Your task to perform on an android device: Go to CNN.com Image 0: 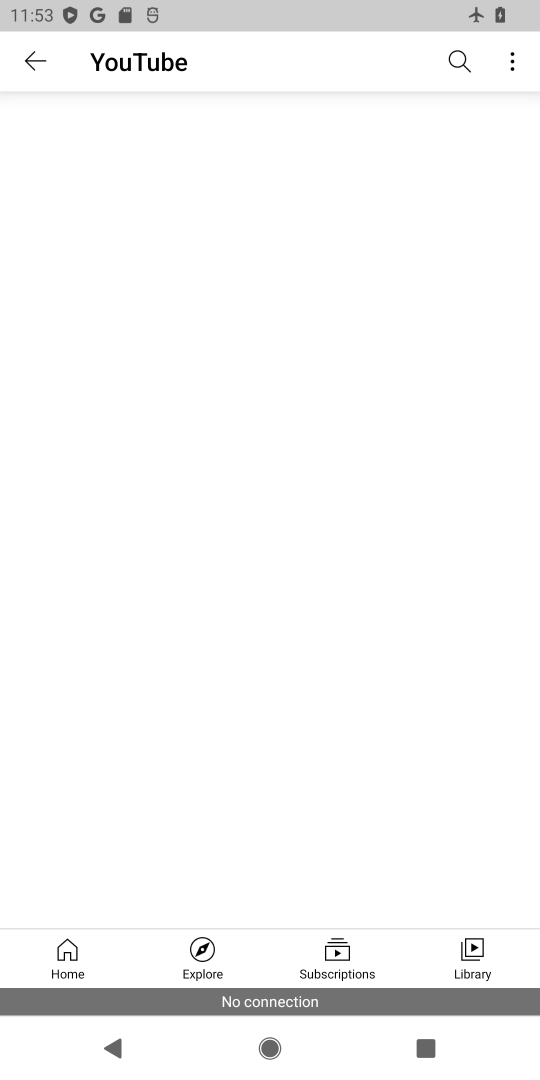
Step 0: press home button
Your task to perform on an android device: Go to CNN.com Image 1: 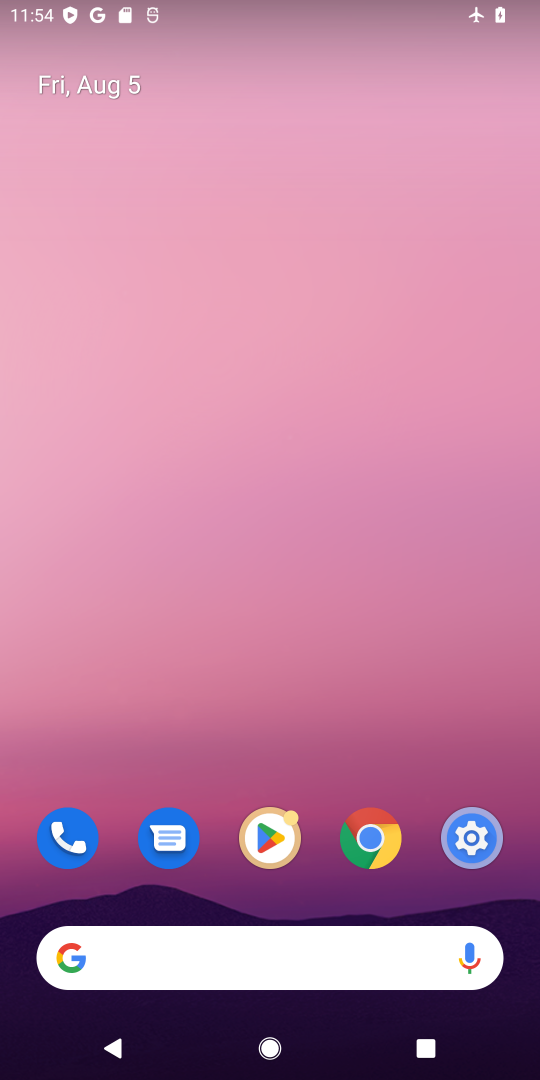
Step 1: click (263, 947)
Your task to perform on an android device: Go to CNN.com Image 2: 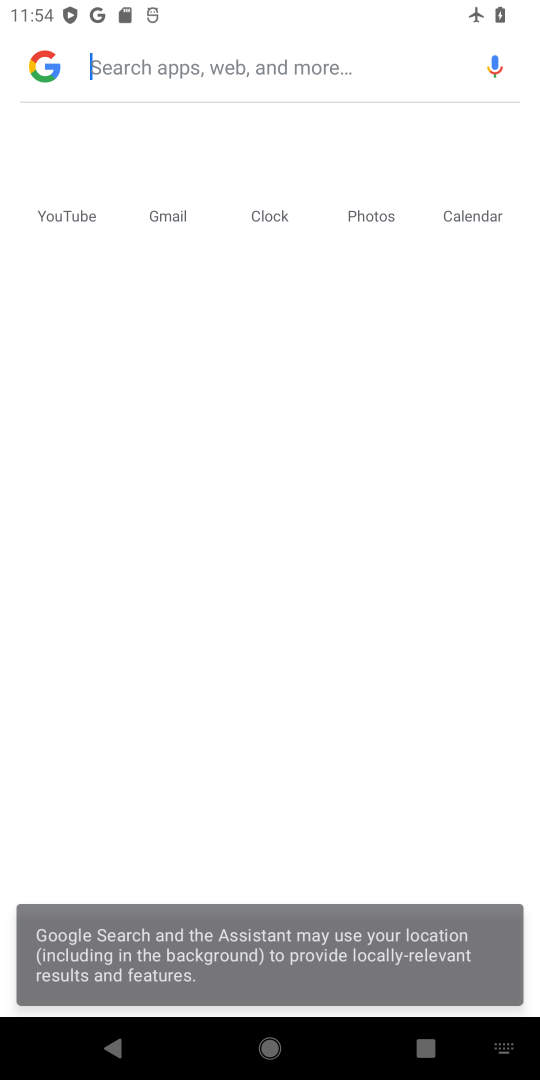
Step 2: click (98, 58)
Your task to perform on an android device: Go to CNN.com Image 3: 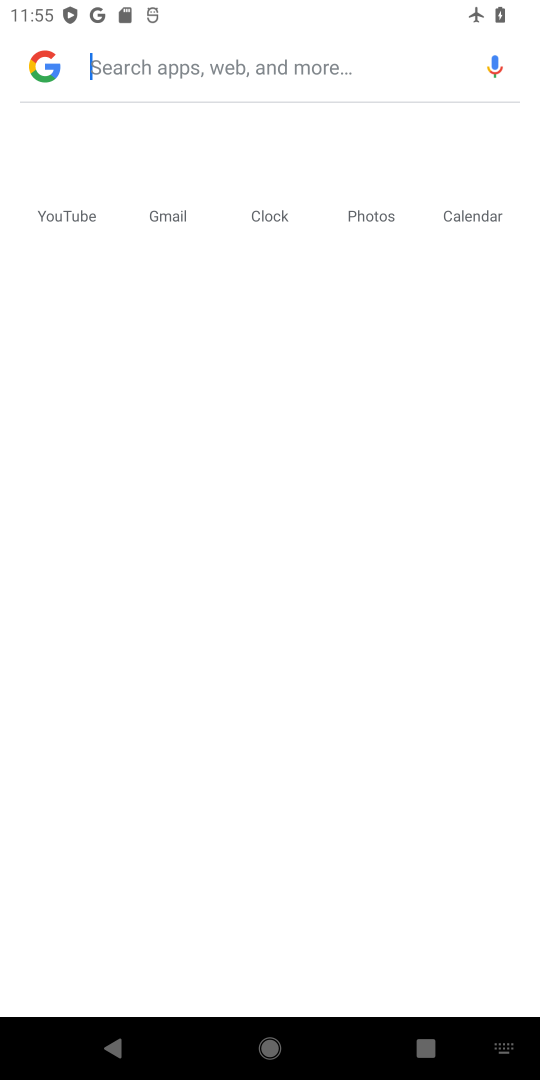
Step 3: type "CNN.com"
Your task to perform on an android device: Go to CNN.com Image 4: 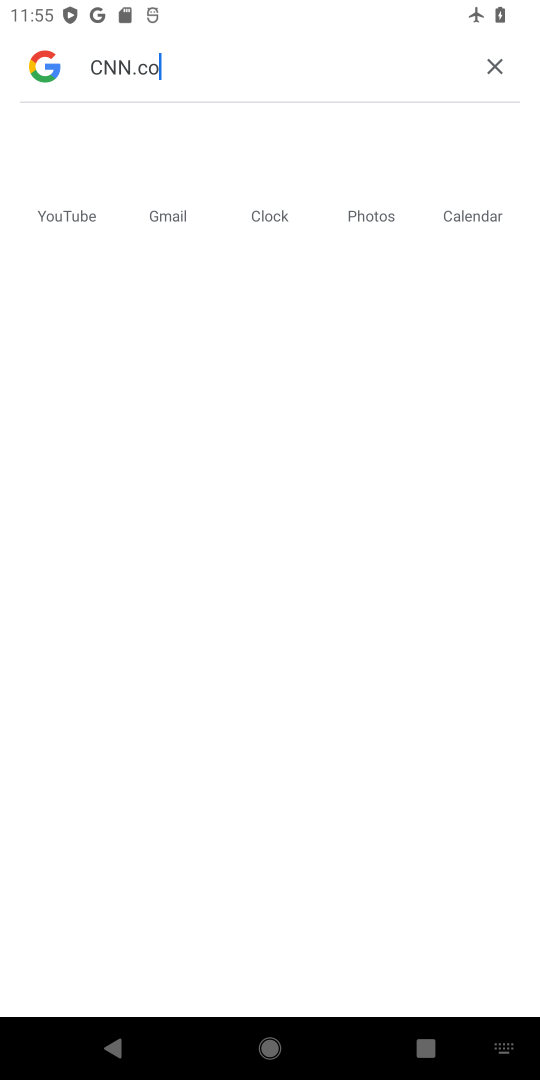
Step 4: type ""
Your task to perform on an android device: Go to CNN.com Image 5: 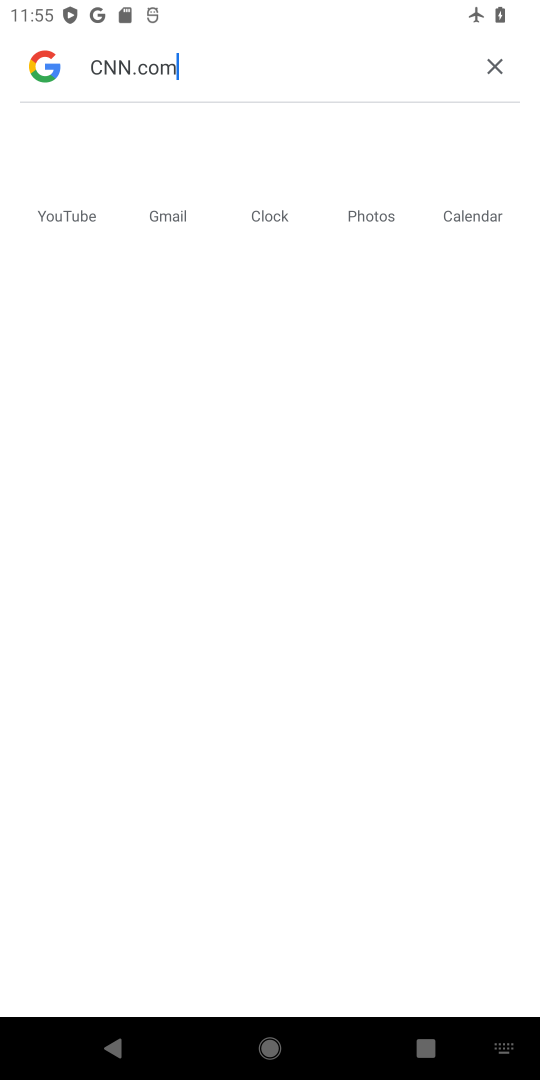
Step 5: press enter
Your task to perform on an android device: Go to CNN.com Image 6: 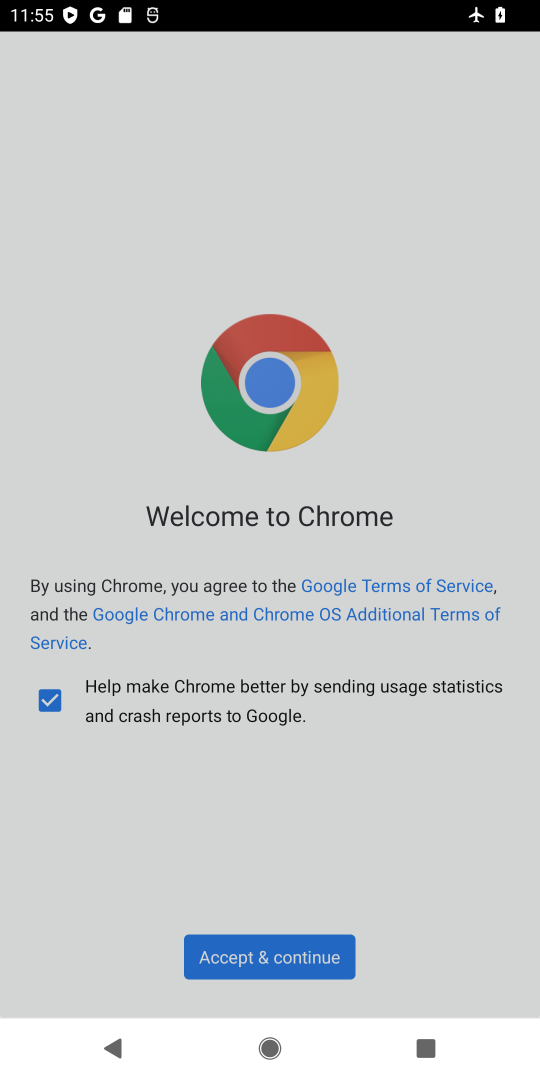
Step 6: click (296, 951)
Your task to perform on an android device: Go to CNN.com Image 7: 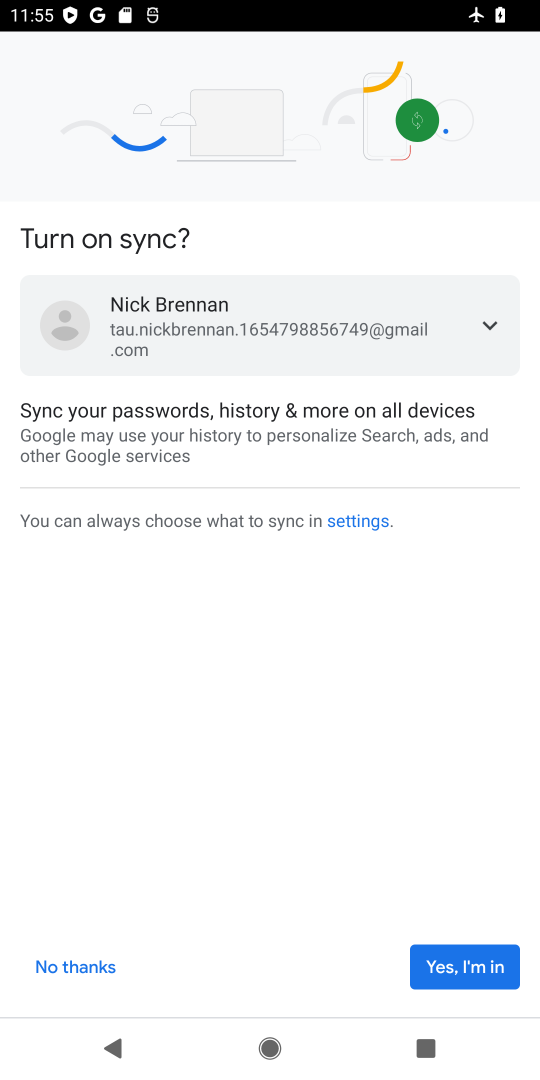
Step 7: click (446, 972)
Your task to perform on an android device: Go to CNN.com Image 8: 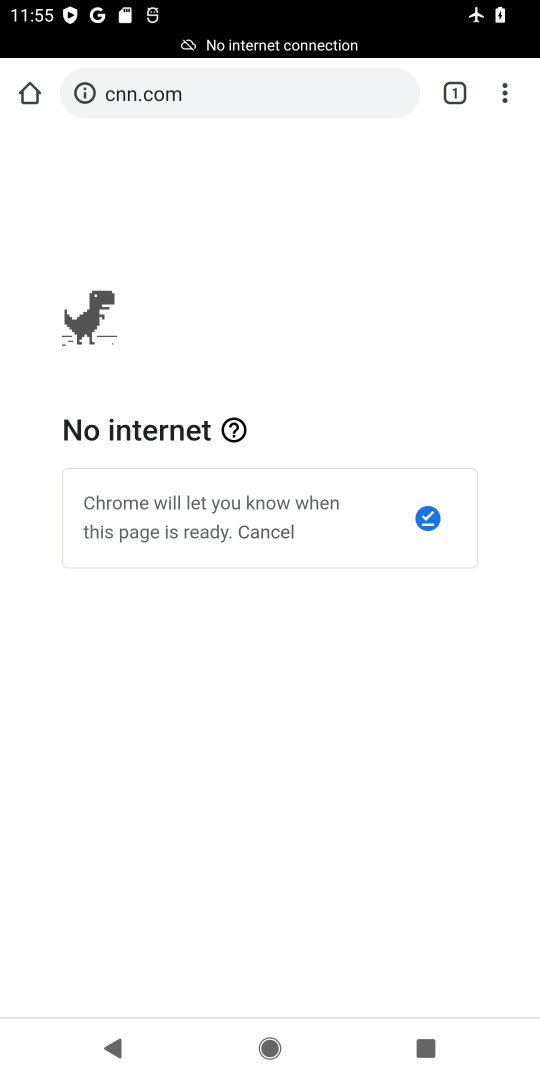
Step 8: drag from (394, 7) to (337, 399)
Your task to perform on an android device: Go to CNN.com Image 9: 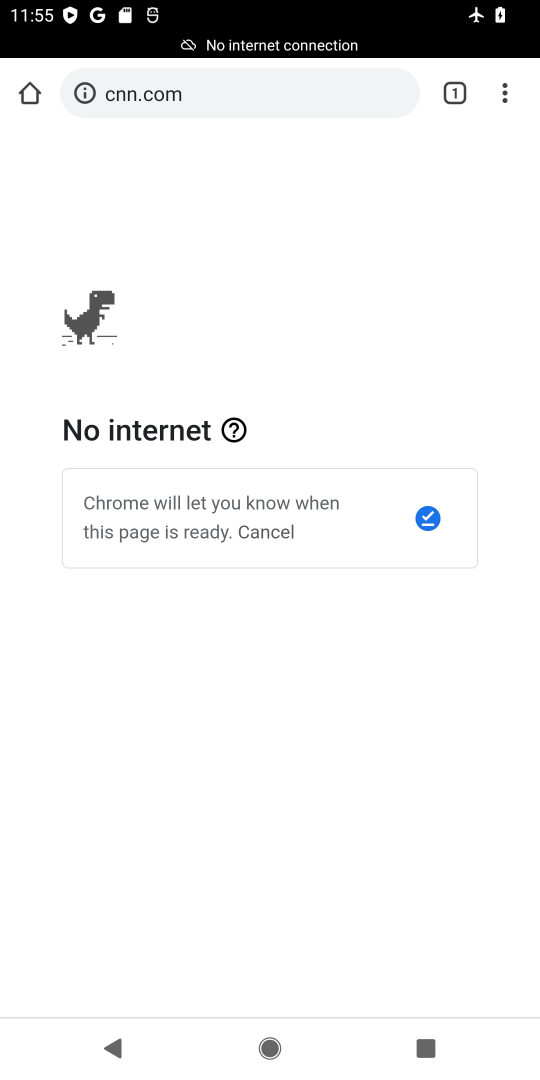
Step 9: drag from (421, 102) to (429, 613)
Your task to perform on an android device: Go to CNN.com Image 10: 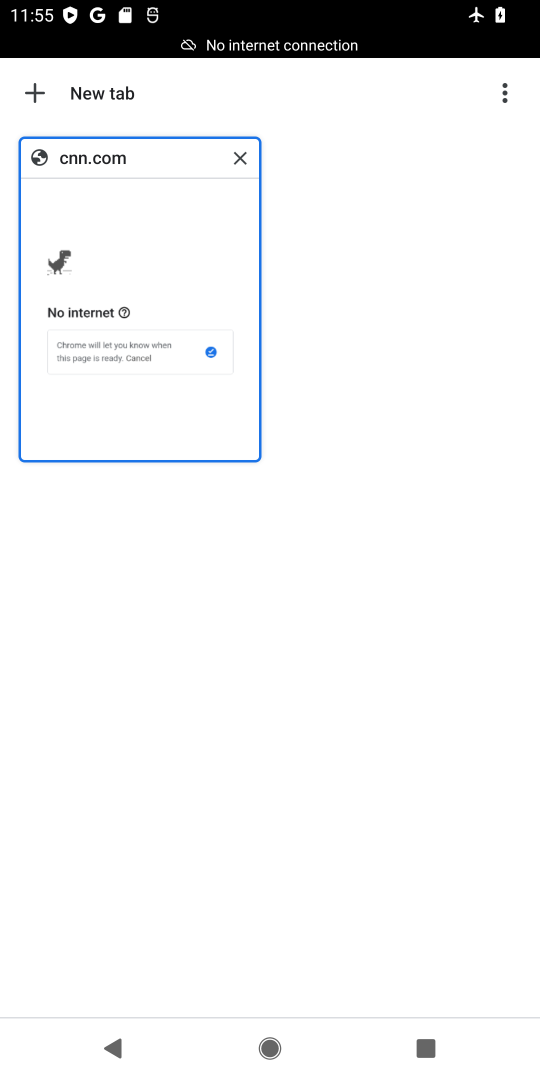
Step 10: click (241, 158)
Your task to perform on an android device: Go to CNN.com Image 11: 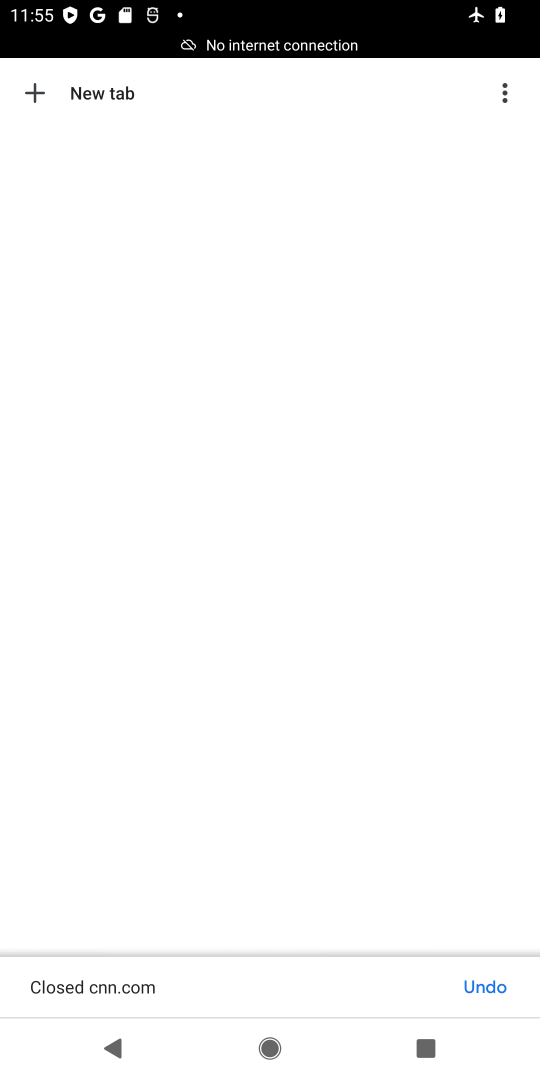
Step 11: drag from (460, 7) to (431, 647)
Your task to perform on an android device: Go to CNN.com Image 12: 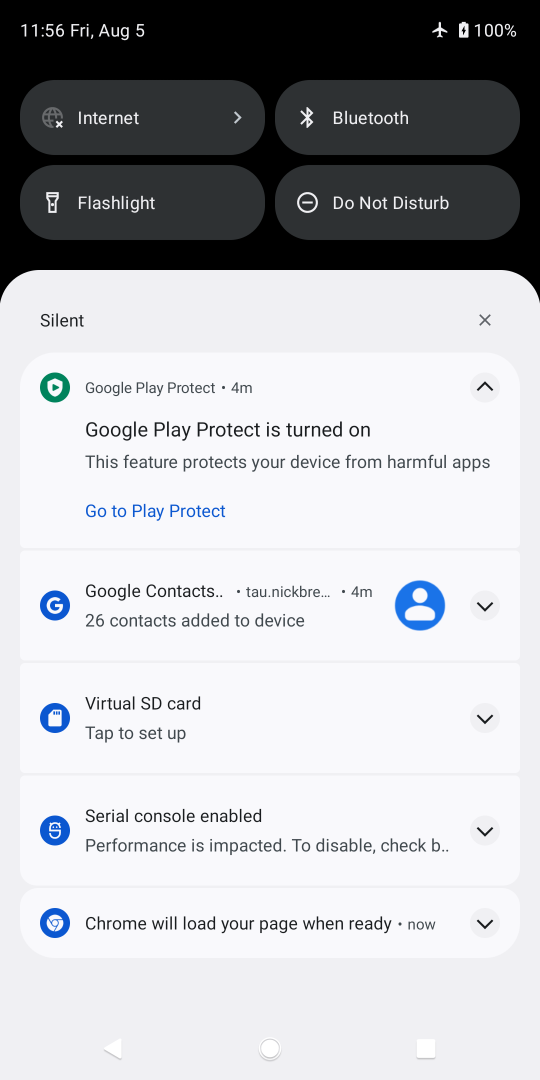
Step 12: drag from (398, 6) to (413, 560)
Your task to perform on an android device: Go to CNN.com Image 13: 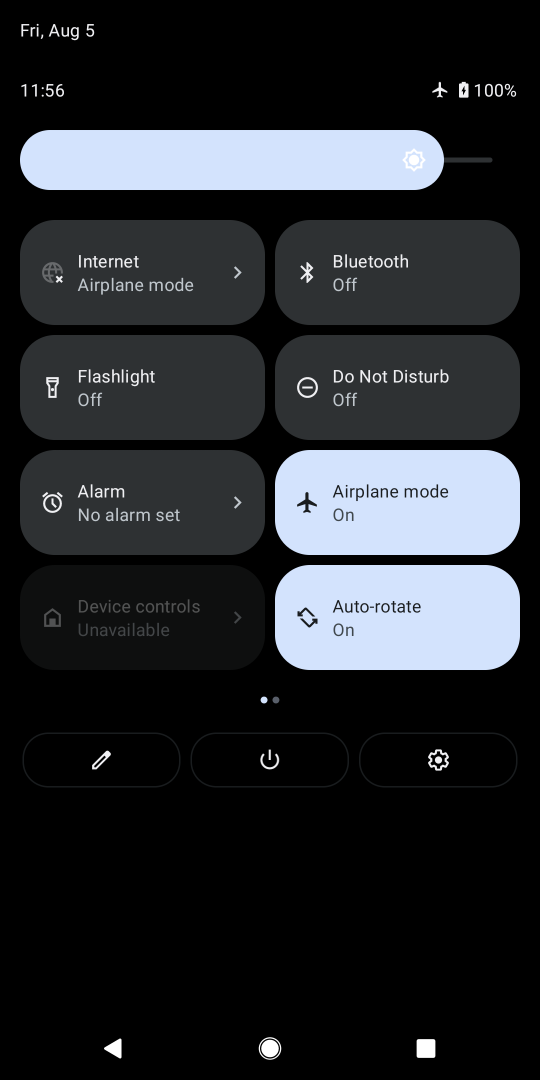
Step 13: click (391, 514)
Your task to perform on an android device: Go to CNN.com Image 14: 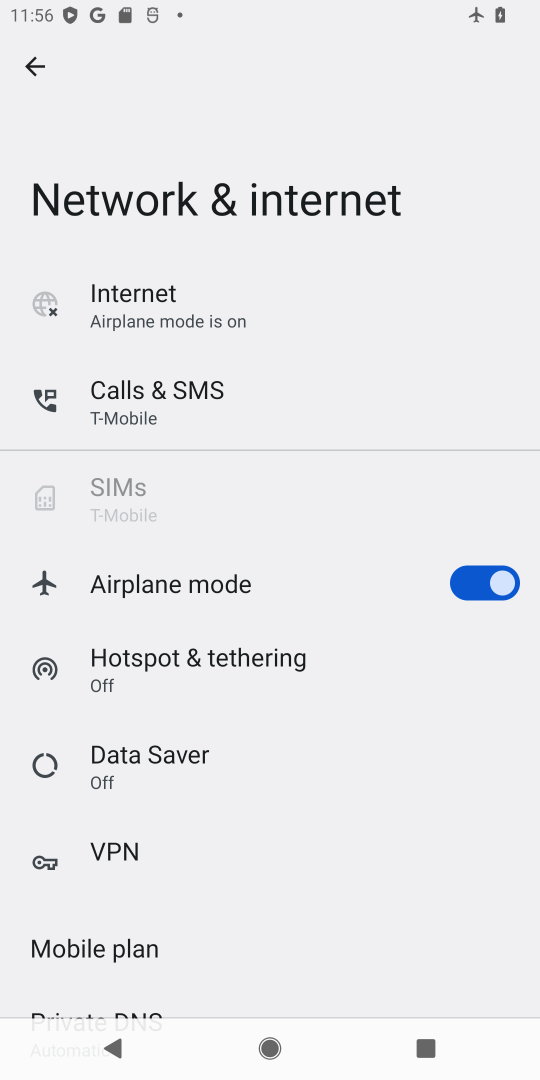
Step 14: task complete